Your task to perform on an android device: Clear the cart on costco.com. Search for "dell xps" on costco.com, select the first entry, and add it to the cart. Image 0: 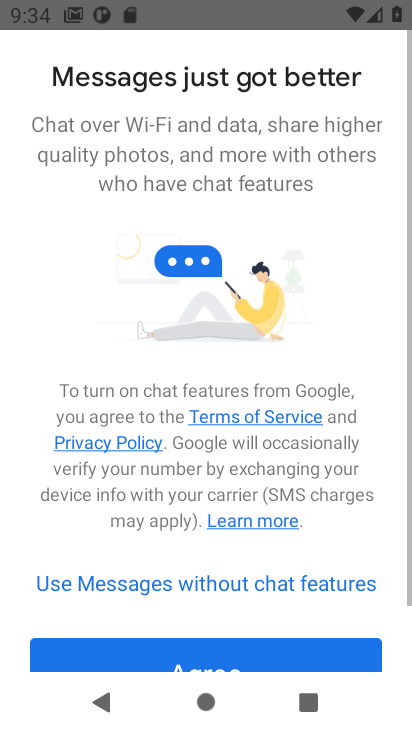
Step 0: press home button
Your task to perform on an android device: Clear the cart on costco.com. Search for "dell xps" on costco.com, select the first entry, and add it to the cart. Image 1: 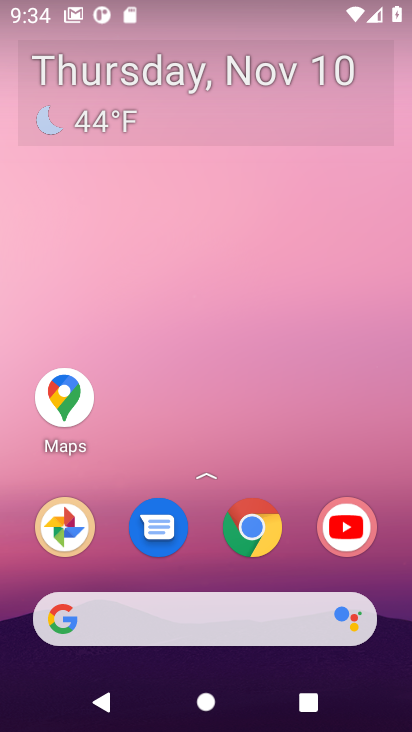
Step 1: drag from (212, 397) to (175, 35)
Your task to perform on an android device: Clear the cart on costco.com. Search for "dell xps" on costco.com, select the first entry, and add it to the cart. Image 2: 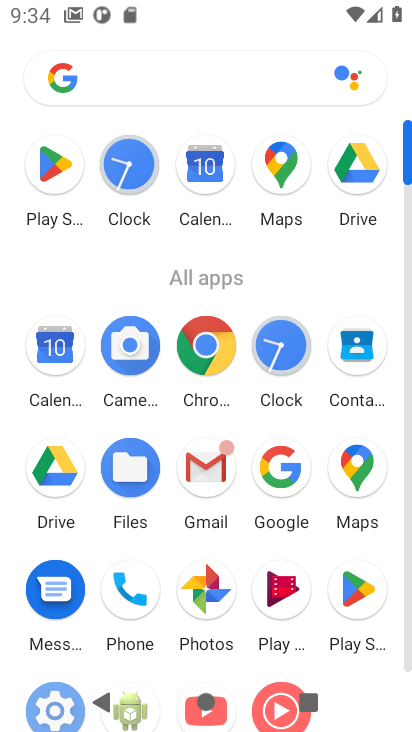
Step 2: click (203, 358)
Your task to perform on an android device: Clear the cart on costco.com. Search for "dell xps" on costco.com, select the first entry, and add it to the cart. Image 3: 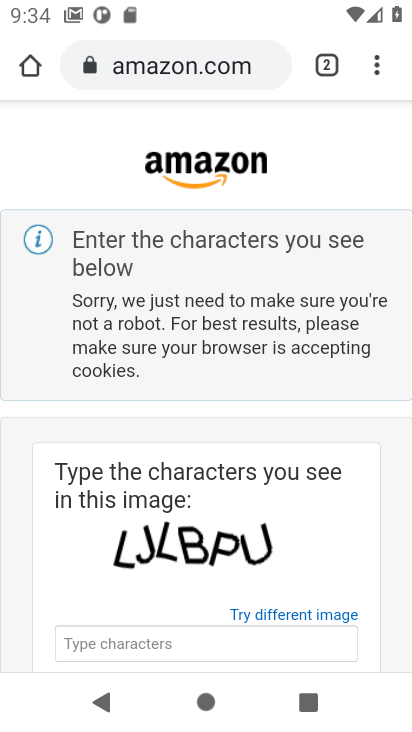
Step 3: click (179, 56)
Your task to perform on an android device: Clear the cart on costco.com. Search for "dell xps" on costco.com, select the first entry, and add it to the cart. Image 4: 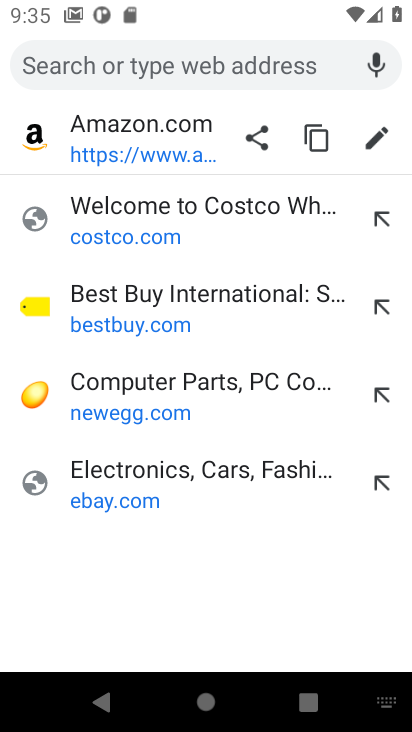
Step 4: type "costco.com"
Your task to perform on an android device: Clear the cart on costco.com. Search for "dell xps" on costco.com, select the first entry, and add it to the cart. Image 5: 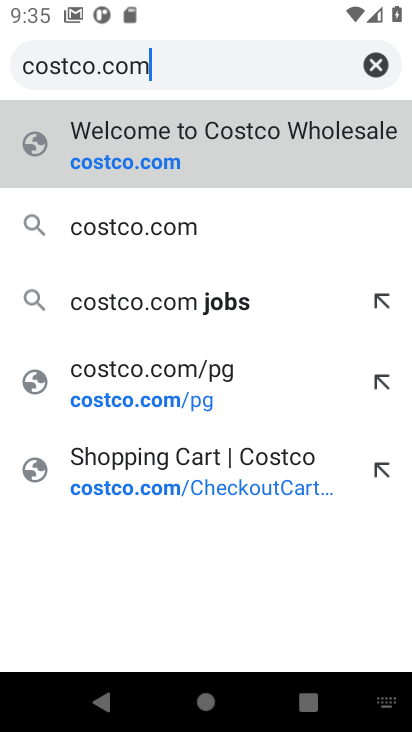
Step 5: press enter
Your task to perform on an android device: Clear the cart on costco.com. Search for "dell xps" on costco.com, select the first entry, and add it to the cart. Image 6: 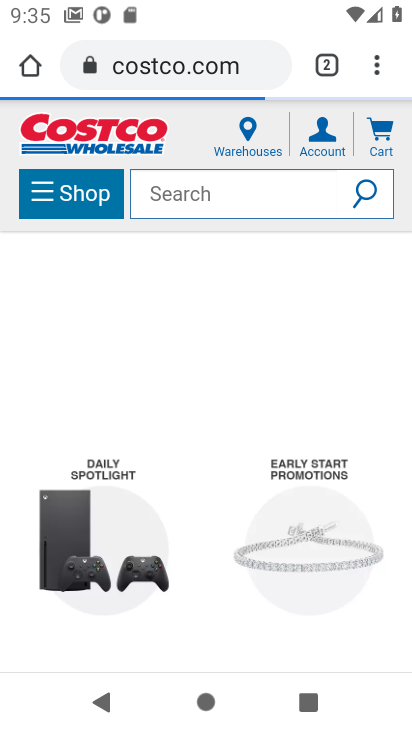
Step 6: click (149, 202)
Your task to perform on an android device: Clear the cart on costco.com. Search for "dell xps" on costco.com, select the first entry, and add it to the cart. Image 7: 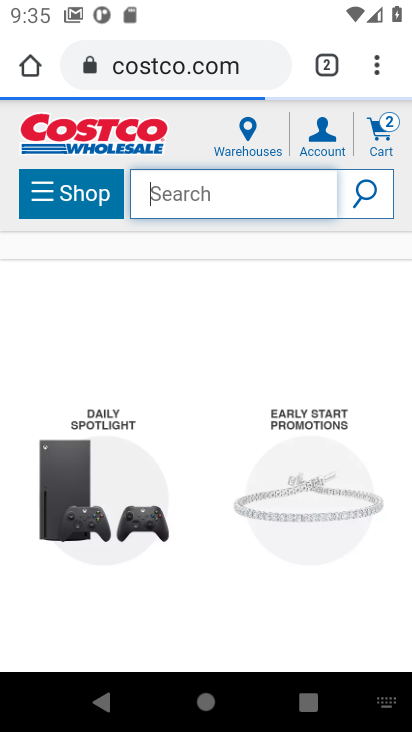
Step 7: click (372, 126)
Your task to perform on an android device: Clear the cart on costco.com. Search for "dell xps" on costco.com, select the first entry, and add it to the cart. Image 8: 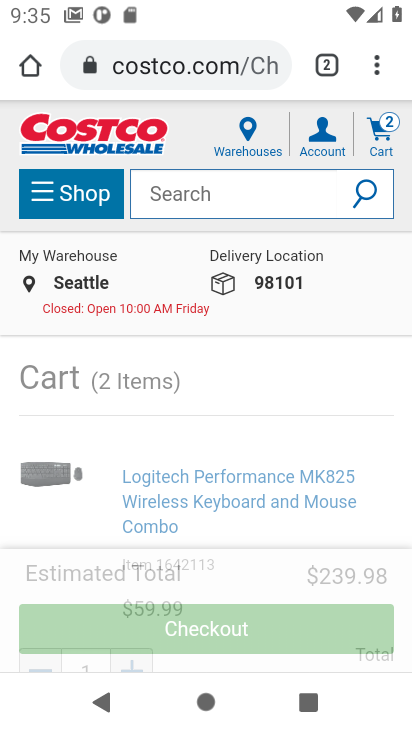
Step 8: drag from (180, 516) to (201, 289)
Your task to perform on an android device: Clear the cart on costco.com. Search for "dell xps" on costco.com, select the first entry, and add it to the cart. Image 9: 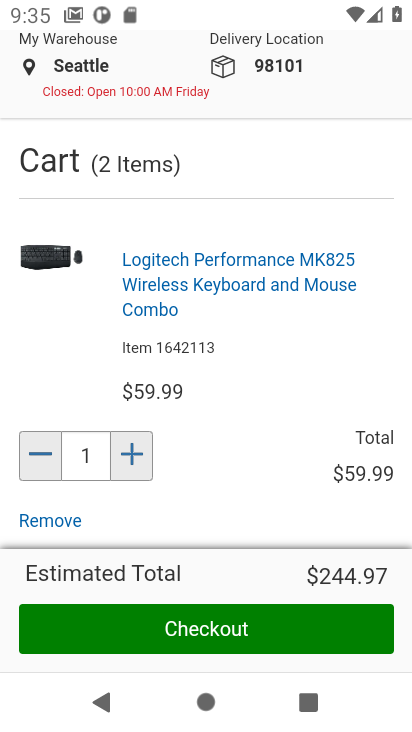
Step 9: drag from (134, 457) to (159, 304)
Your task to perform on an android device: Clear the cart on costco.com. Search for "dell xps" on costco.com, select the first entry, and add it to the cart. Image 10: 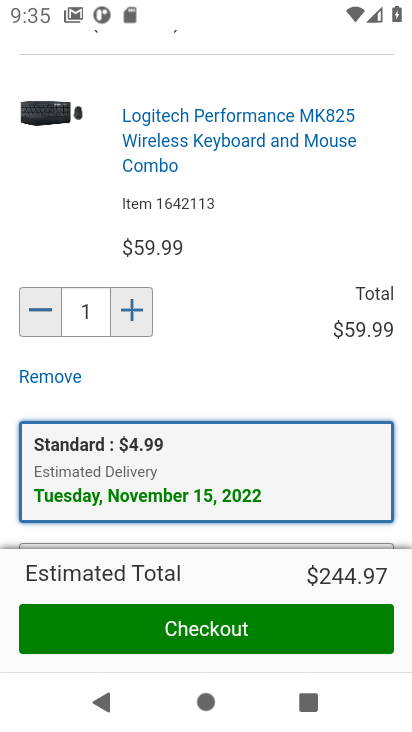
Step 10: click (52, 385)
Your task to perform on an android device: Clear the cart on costco.com. Search for "dell xps" on costco.com, select the first entry, and add it to the cart. Image 11: 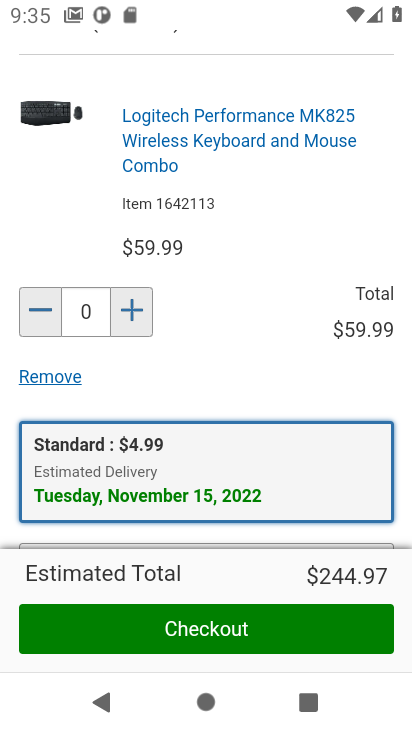
Step 11: click (52, 371)
Your task to perform on an android device: Clear the cart on costco.com. Search for "dell xps" on costco.com, select the first entry, and add it to the cart. Image 12: 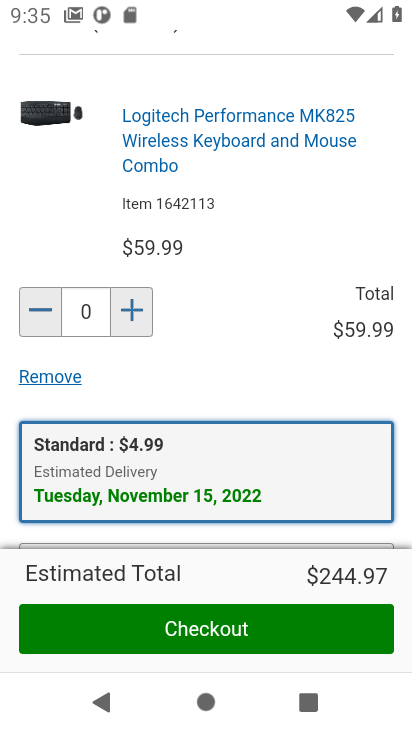
Step 12: click (55, 378)
Your task to perform on an android device: Clear the cart on costco.com. Search for "dell xps" on costco.com, select the first entry, and add it to the cart. Image 13: 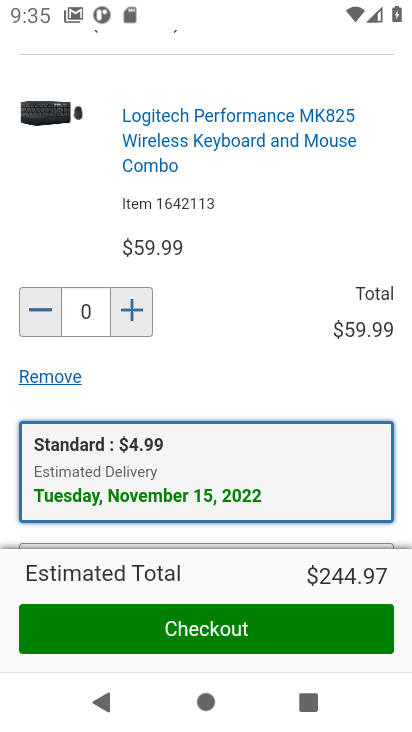
Step 13: click (56, 378)
Your task to perform on an android device: Clear the cart on costco.com. Search for "dell xps" on costco.com, select the first entry, and add it to the cart. Image 14: 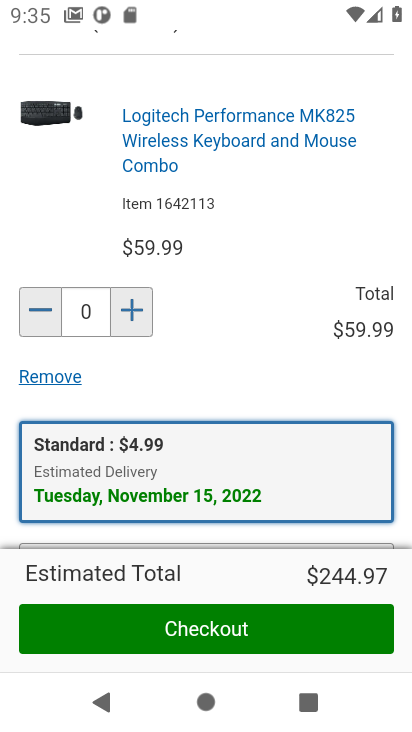
Step 14: click (56, 378)
Your task to perform on an android device: Clear the cart on costco.com. Search for "dell xps" on costco.com, select the first entry, and add it to the cart. Image 15: 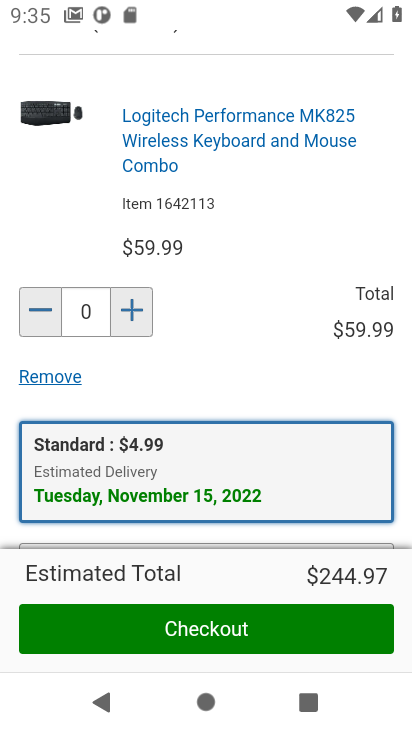
Step 15: click (56, 377)
Your task to perform on an android device: Clear the cart on costco.com. Search for "dell xps" on costco.com, select the first entry, and add it to the cart. Image 16: 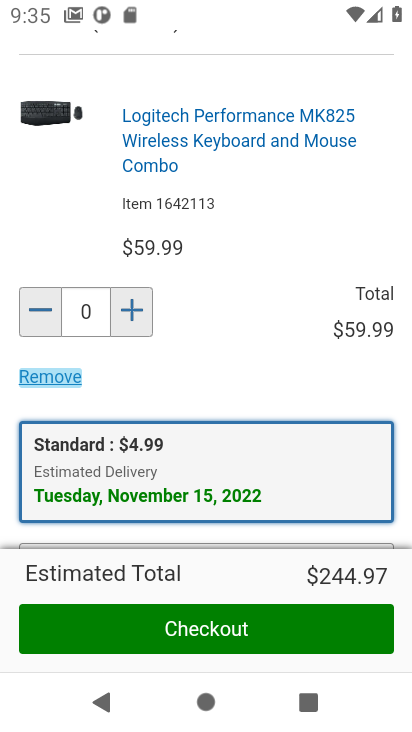
Step 16: click (56, 376)
Your task to perform on an android device: Clear the cart on costco.com. Search for "dell xps" on costco.com, select the first entry, and add it to the cart. Image 17: 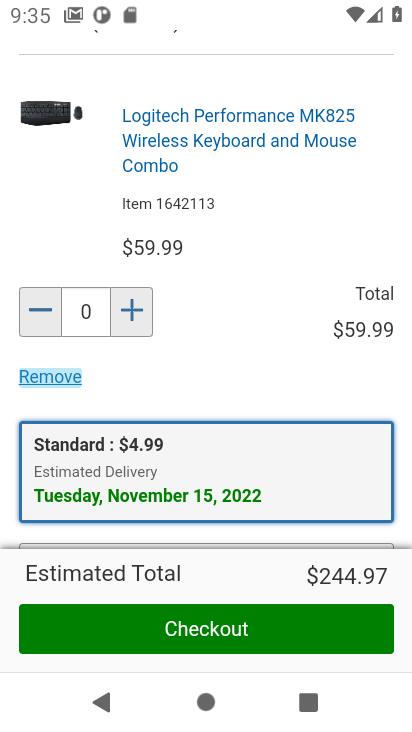
Step 17: click (56, 376)
Your task to perform on an android device: Clear the cart on costco.com. Search for "dell xps" on costco.com, select the first entry, and add it to the cart. Image 18: 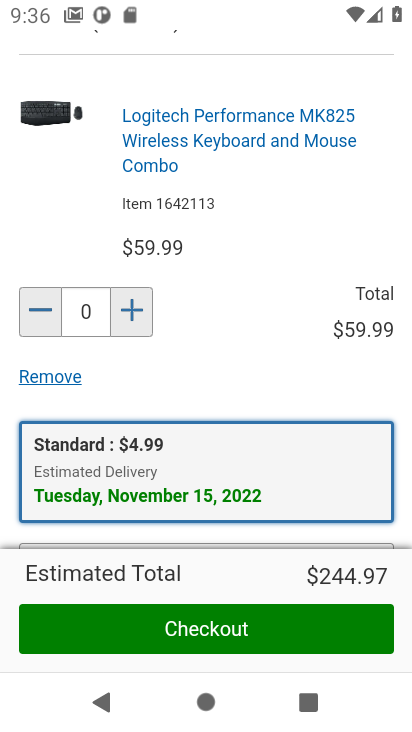
Step 18: click (56, 375)
Your task to perform on an android device: Clear the cart on costco.com. Search for "dell xps" on costco.com, select the first entry, and add it to the cart. Image 19: 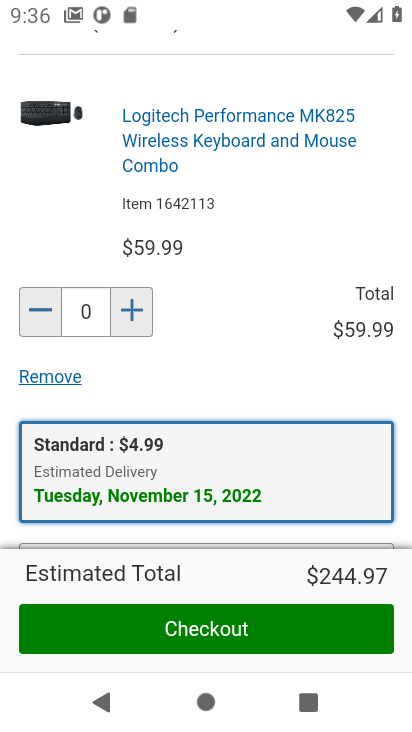
Step 19: drag from (235, 192) to (243, 532)
Your task to perform on an android device: Clear the cart on costco.com. Search for "dell xps" on costco.com, select the first entry, and add it to the cart. Image 20: 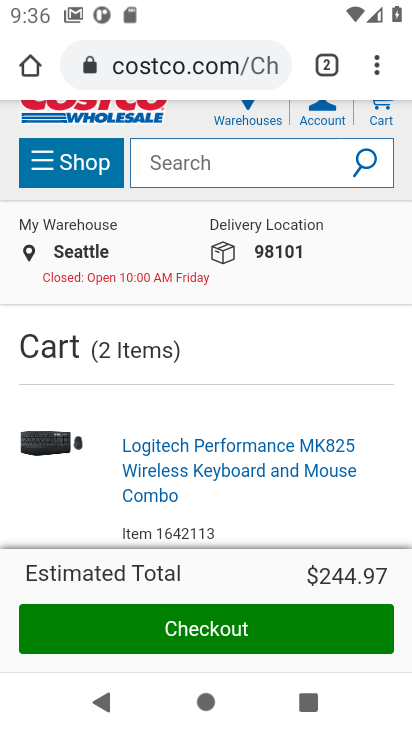
Step 20: drag from (216, 297) to (230, 486)
Your task to perform on an android device: Clear the cart on costco.com. Search for "dell xps" on costco.com, select the first entry, and add it to the cart. Image 21: 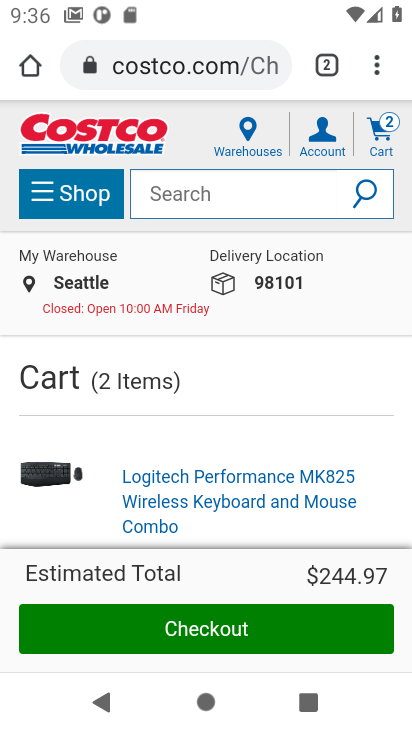
Step 21: drag from (153, 506) to (147, 245)
Your task to perform on an android device: Clear the cart on costco.com. Search for "dell xps" on costco.com, select the first entry, and add it to the cart. Image 22: 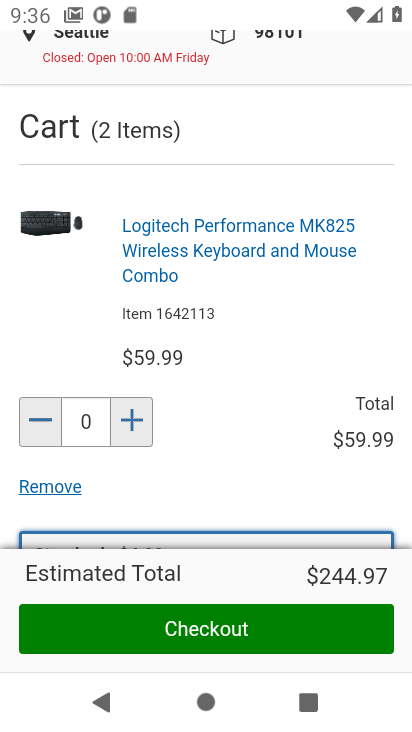
Step 22: drag from (39, 488) to (52, 396)
Your task to perform on an android device: Clear the cart on costco.com. Search for "dell xps" on costco.com, select the first entry, and add it to the cart. Image 23: 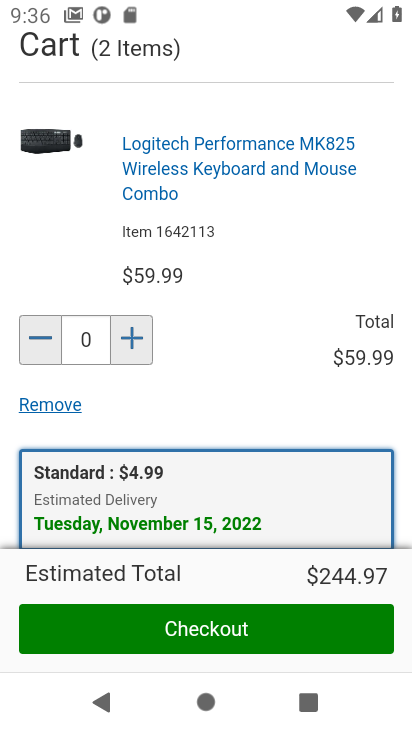
Step 23: click (54, 403)
Your task to perform on an android device: Clear the cart on costco.com. Search for "dell xps" on costco.com, select the first entry, and add it to the cart. Image 24: 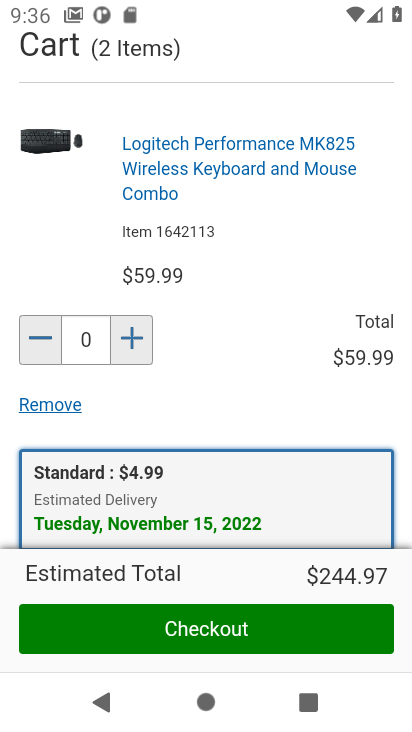
Step 24: click (54, 403)
Your task to perform on an android device: Clear the cart on costco.com. Search for "dell xps" on costco.com, select the first entry, and add it to the cart. Image 25: 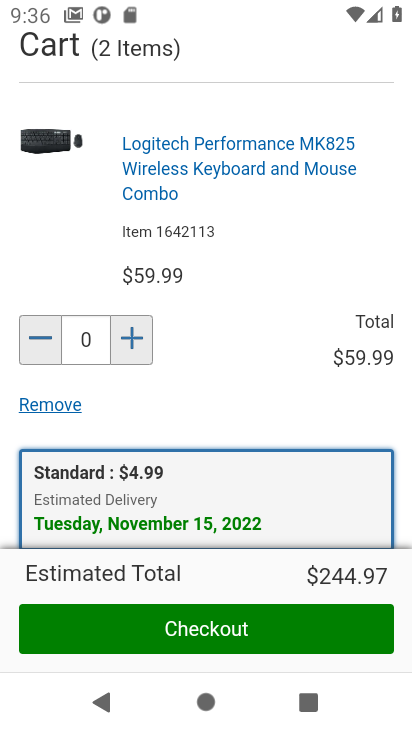
Step 25: click (54, 401)
Your task to perform on an android device: Clear the cart on costco.com. Search for "dell xps" on costco.com, select the first entry, and add it to the cart. Image 26: 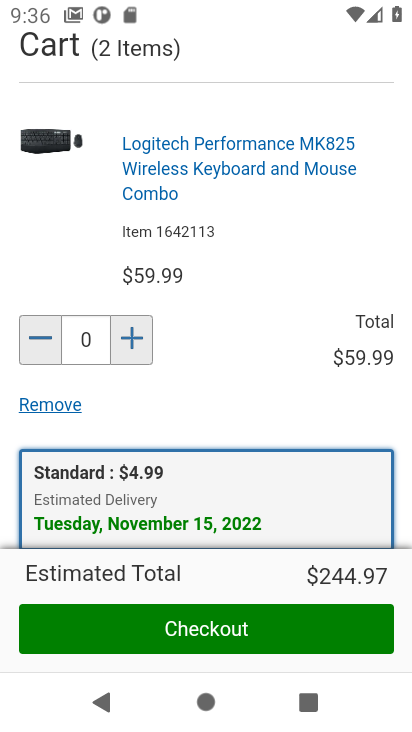
Step 26: drag from (140, 531) to (180, 311)
Your task to perform on an android device: Clear the cart on costco.com. Search for "dell xps" on costco.com, select the first entry, and add it to the cart. Image 27: 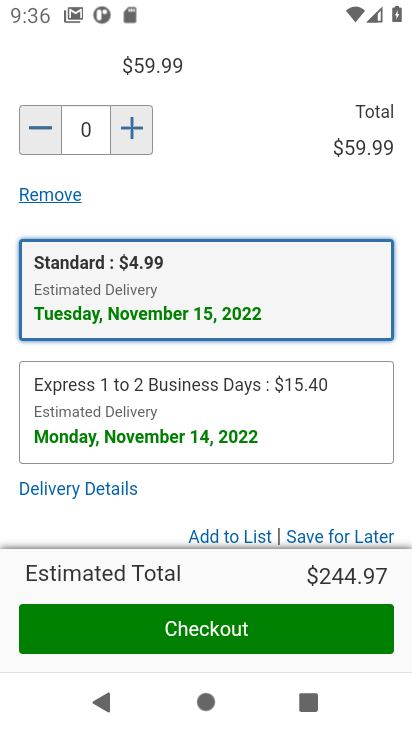
Step 27: drag from (104, 456) to (109, 312)
Your task to perform on an android device: Clear the cart on costco.com. Search for "dell xps" on costco.com, select the first entry, and add it to the cart. Image 28: 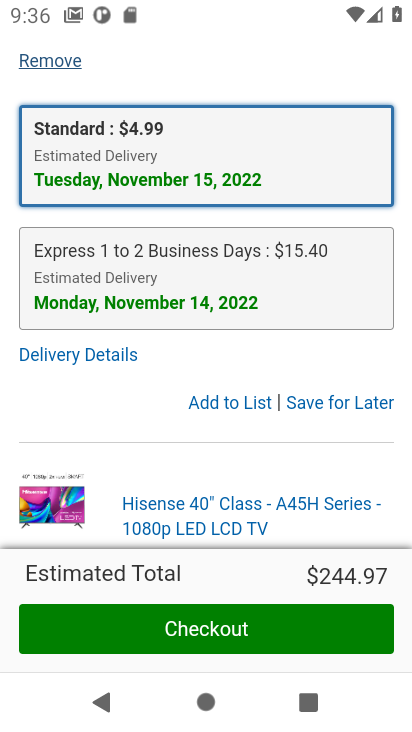
Step 28: click (58, 157)
Your task to perform on an android device: Clear the cart on costco.com. Search for "dell xps" on costco.com, select the first entry, and add it to the cart. Image 29: 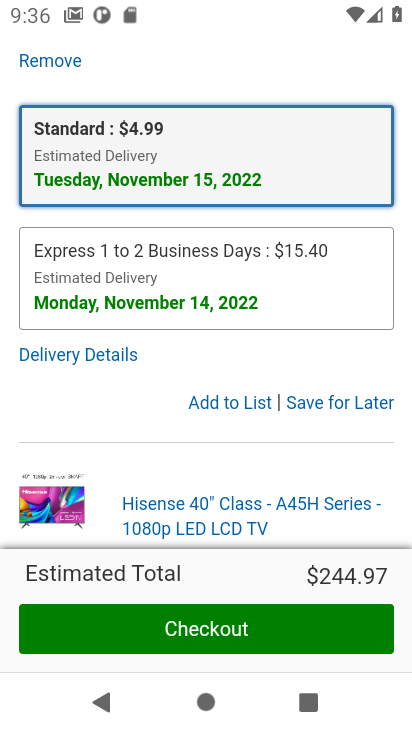
Step 29: click (47, 60)
Your task to perform on an android device: Clear the cart on costco.com. Search for "dell xps" on costco.com, select the first entry, and add it to the cart. Image 30: 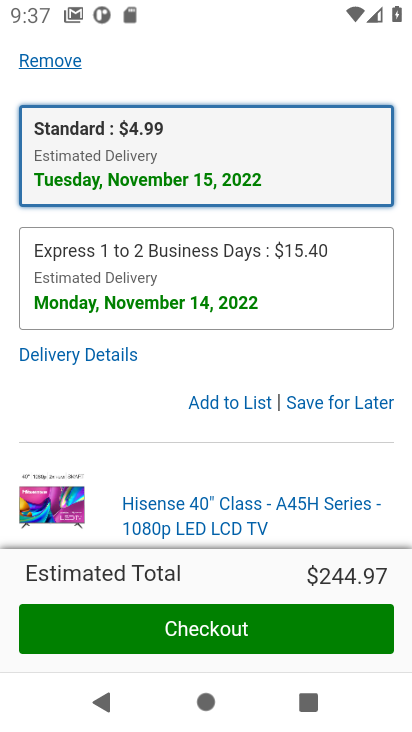
Step 30: click (47, 61)
Your task to perform on an android device: Clear the cart on costco.com. Search for "dell xps" on costco.com, select the first entry, and add it to the cart. Image 31: 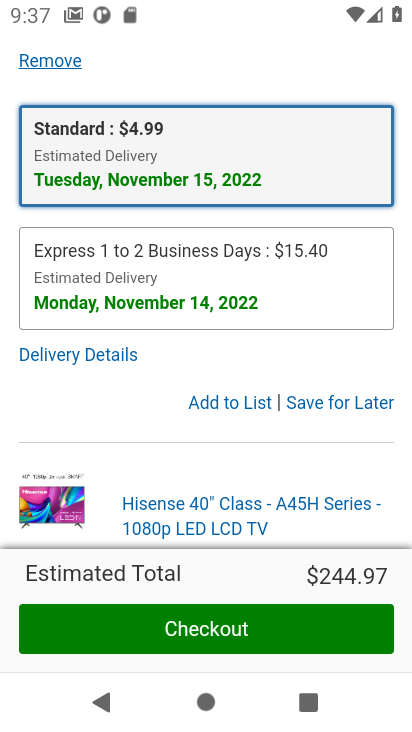
Step 31: task complete